Your task to perform on an android device: Search for Italian restaurants on Maps Image 0: 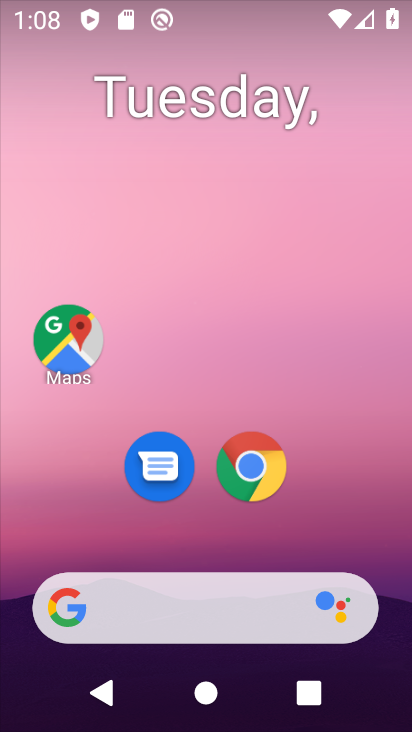
Step 0: click (57, 335)
Your task to perform on an android device: Search for Italian restaurants on Maps Image 1: 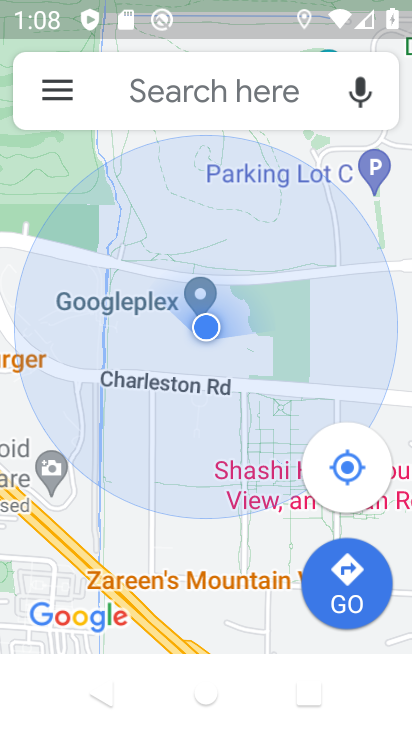
Step 1: click (226, 84)
Your task to perform on an android device: Search for Italian restaurants on Maps Image 2: 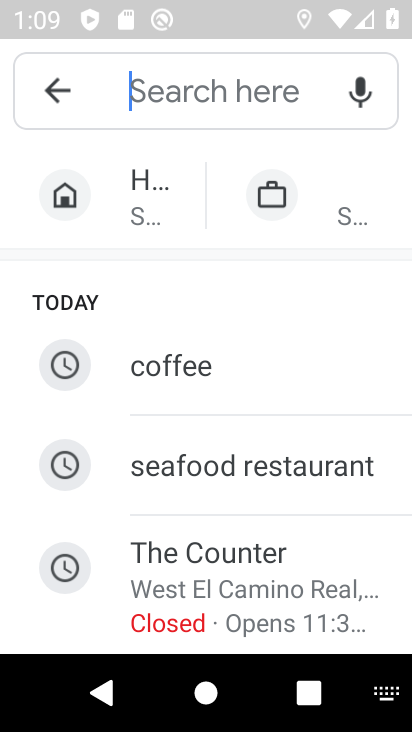
Step 2: type "italian restaurants"
Your task to perform on an android device: Search for Italian restaurants on Maps Image 3: 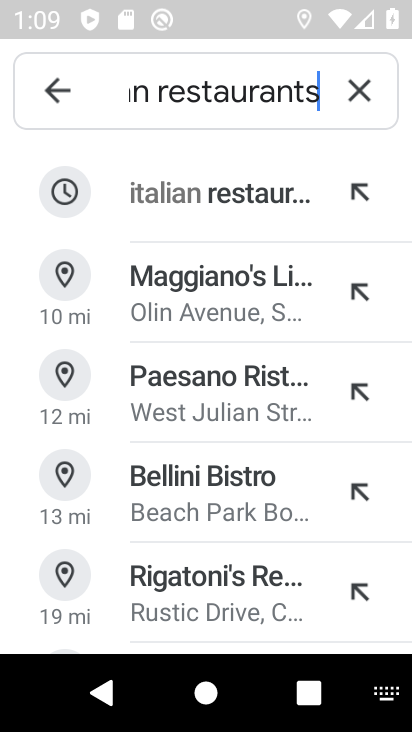
Step 3: click (158, 212)
Your task to perform on an android device: Search for Italian restaurants on Maps Image 4: 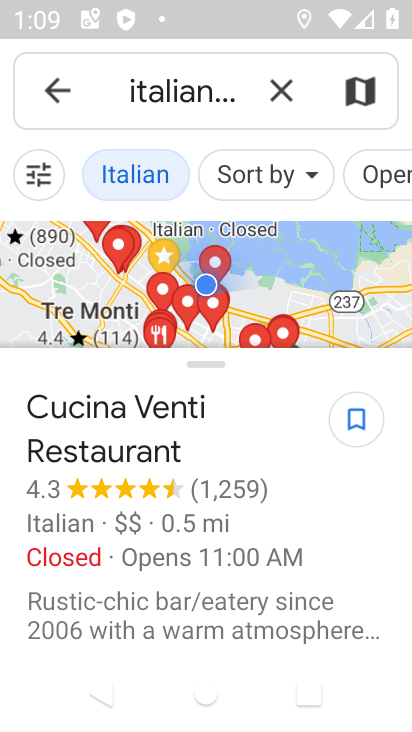
Step 4: task complete